Your task to perform on an android device: Open accessibility settings Image 0: 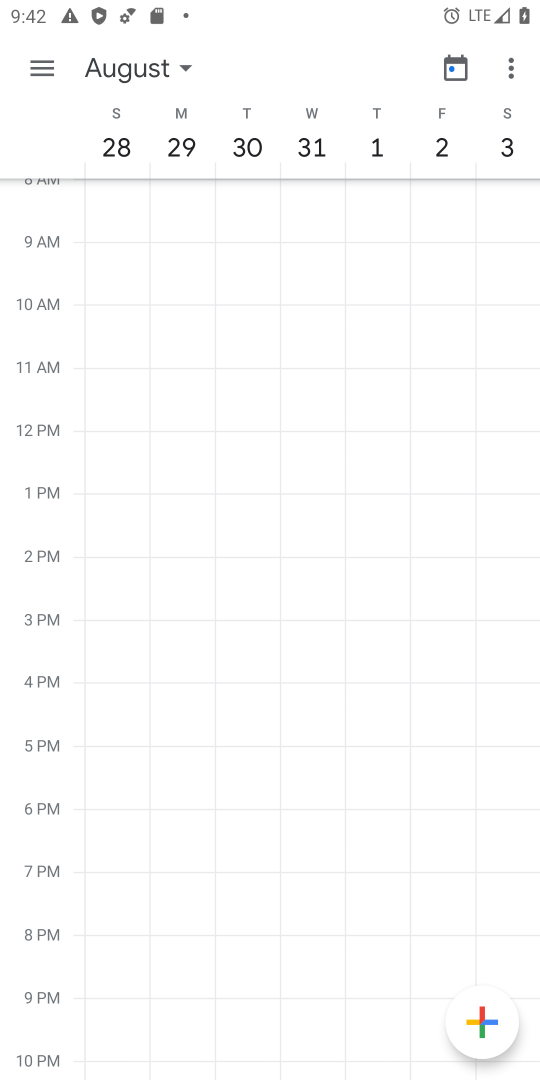
Step 0: press home button
Your task to perform on an android device: Open accessibility settings Image 1: 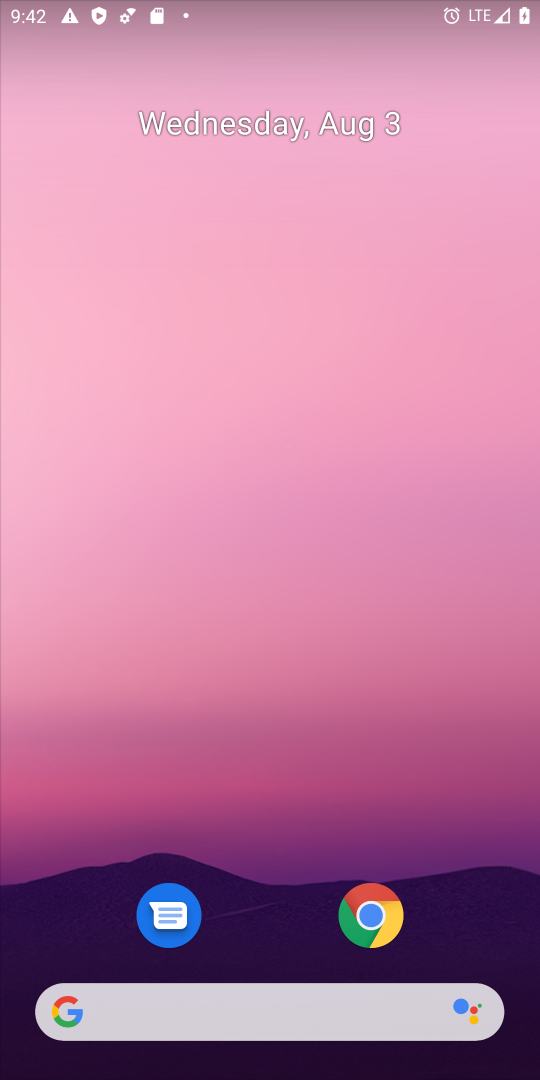
Step 1: drag from (301, 993) to (363, 318)
Your task to perform on an android device: Open accessibility settings Image 2: 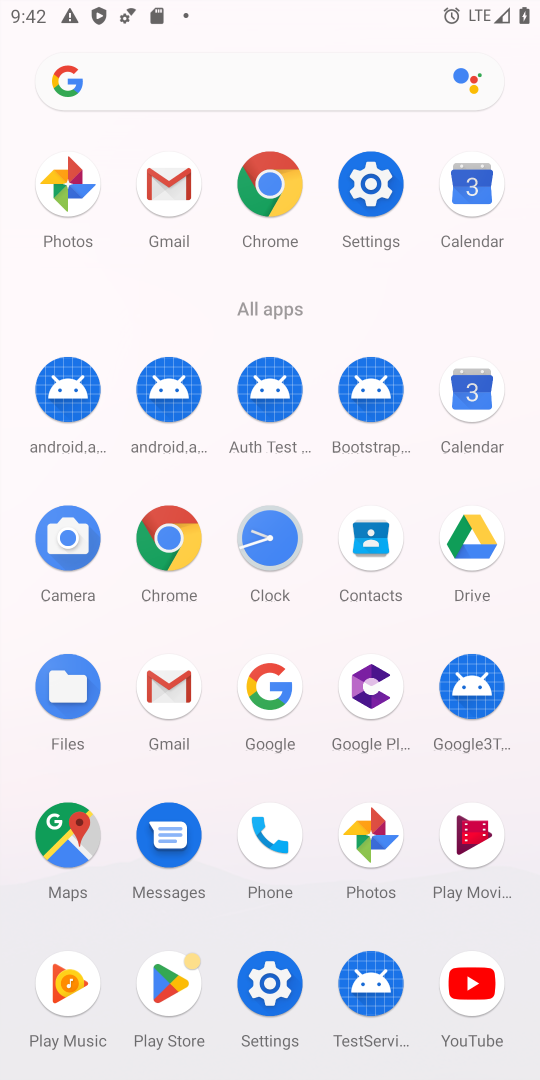
Step 2: click (384, 167)
Your task to perform on an android device: Open accessibility settings Image 3: 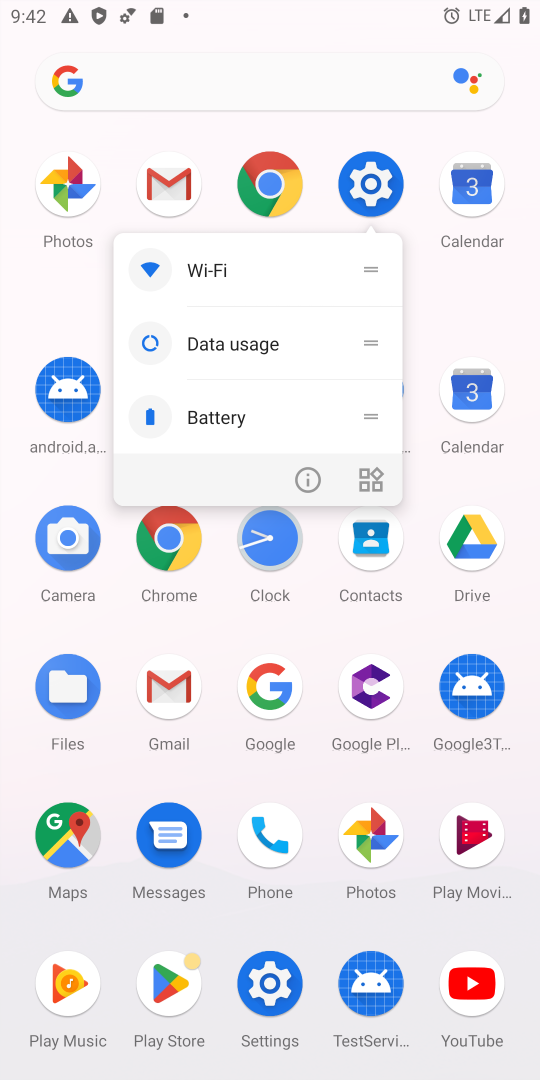
Step 3: click (392, 190)
Your task to perform on an android device: Open accessibility settings Image 4: 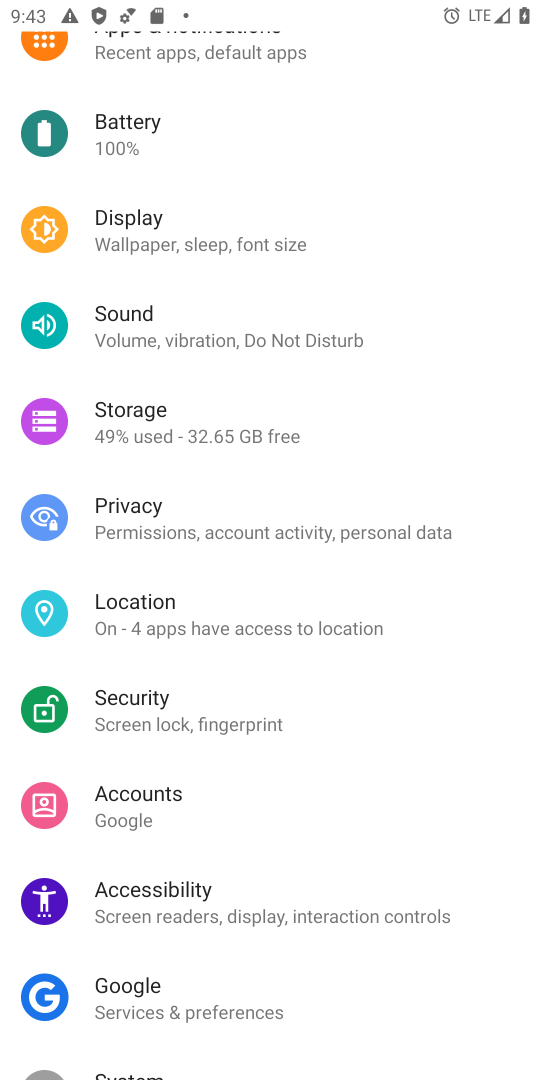
Step 4: click (135, 900)
Your task to perform on an android device: Open accessibility settings Image 5: 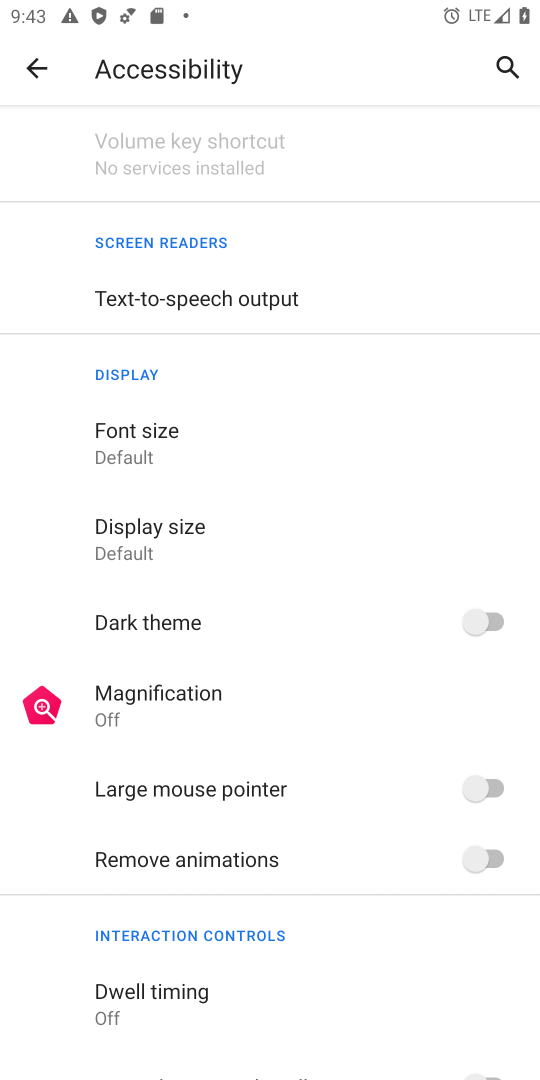
Step 5: task complete